Your task to perform on an android device: change the clock display to analog Image 0: 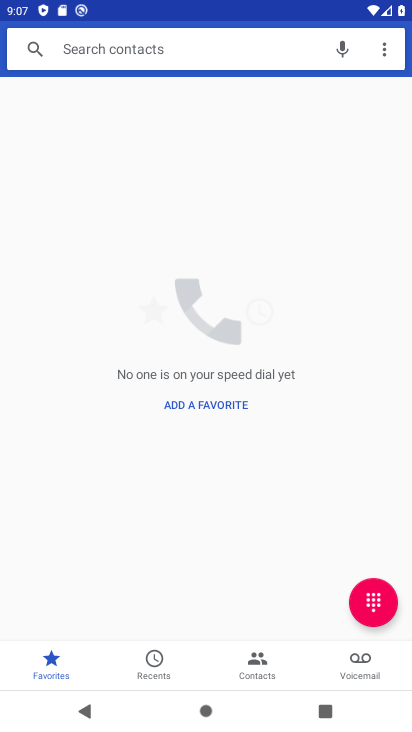
Step 0: press home button
Your task to perform on an android device: change the clock display to analog Image 1: 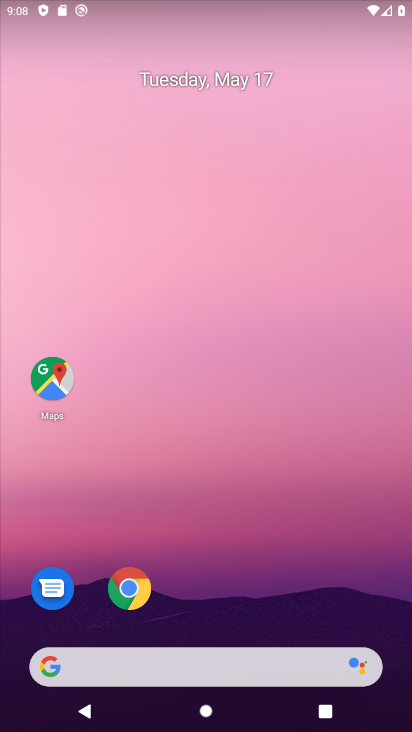
Step 1: drag from (203, 633) to (186, 6)
Your task to perform on an android device: change the clock display to analog Image 2: 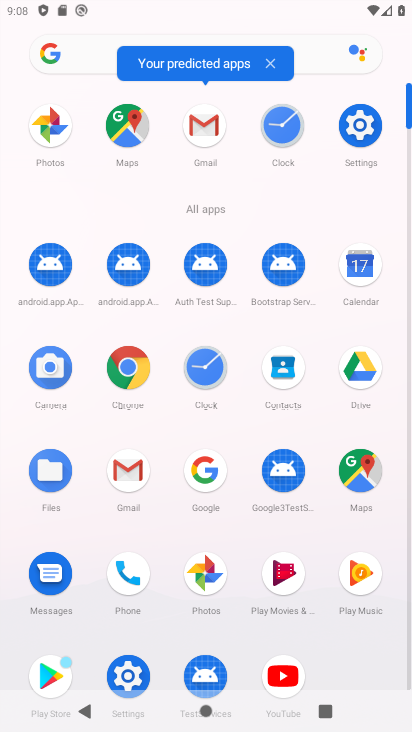
Step 2: click (214, 371)
Your task to perform on an android device: change the clock display to analog Image 3: 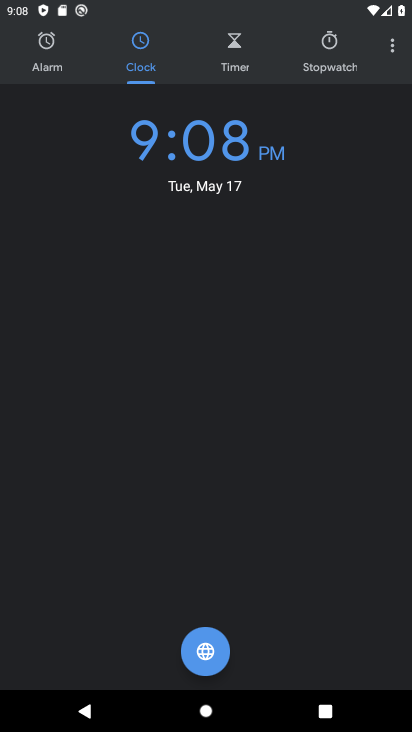
Step 3: click (394, 47)
Your task to perform on an android device: change the clock display to analog Image 4: 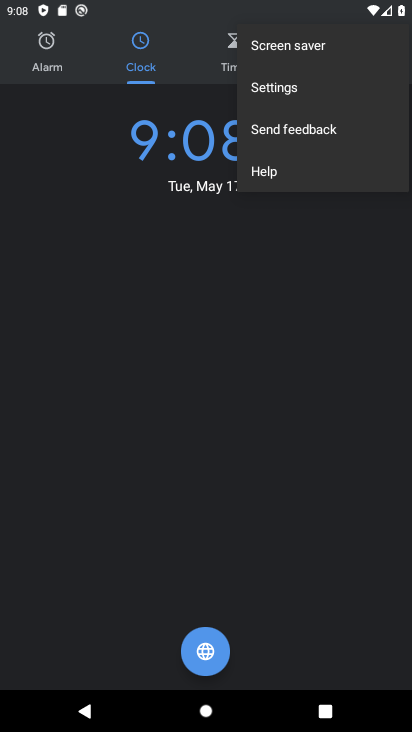
Step 4: click (282, 83)
Your task to perform on an android device: change the clock display to analog Image 5: 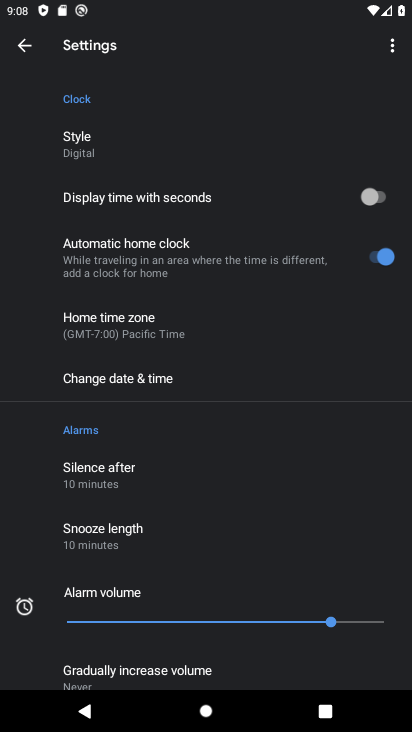
Step 5: click (71, 135)
Your task to perform on an android device: change the clock display to analog Image 6: 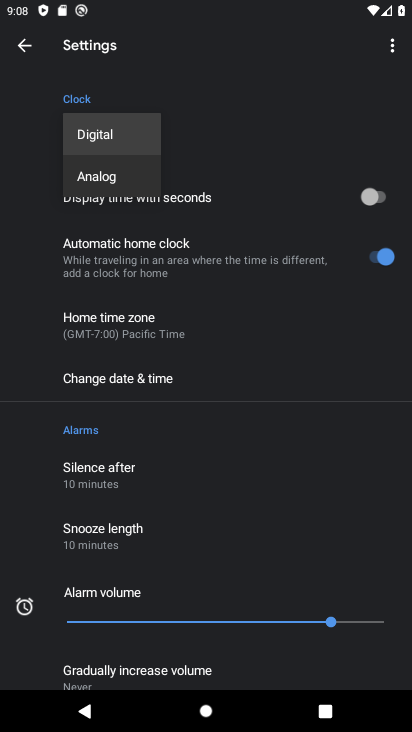
Step 6: click (100, 165)
Your task to perform on an android device: change the clock display to analog Image 7: 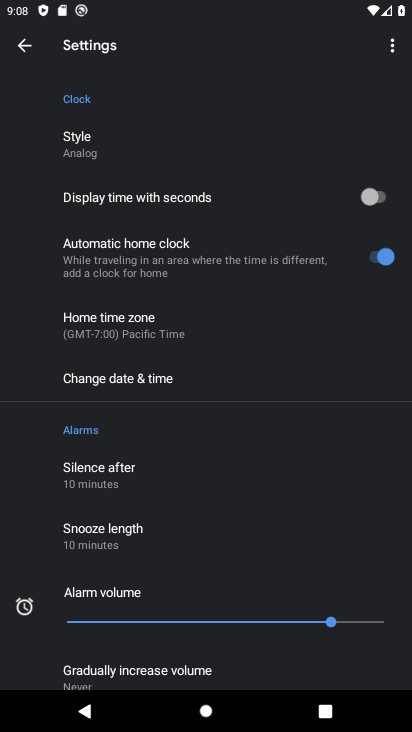
Step 7: task complete